Your task to perform on an android device: turn on translation in the chrome app Image 0: 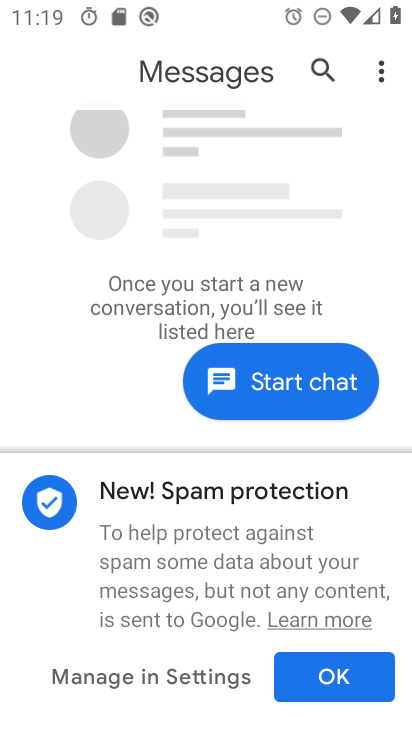
Step 0: press home button
Your task to perform on an android device: turn on translation in the chrome app Image 1: 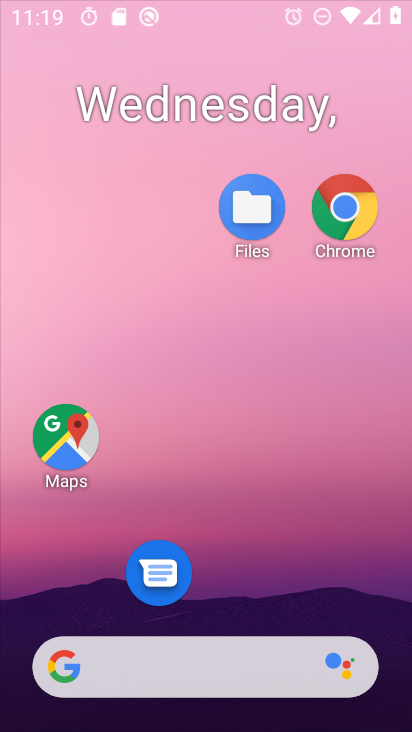
Step 1: drag from (248, 695) to (308, 90)
Your task to perform on an android device: turn on translation in the chrome app Image 2: 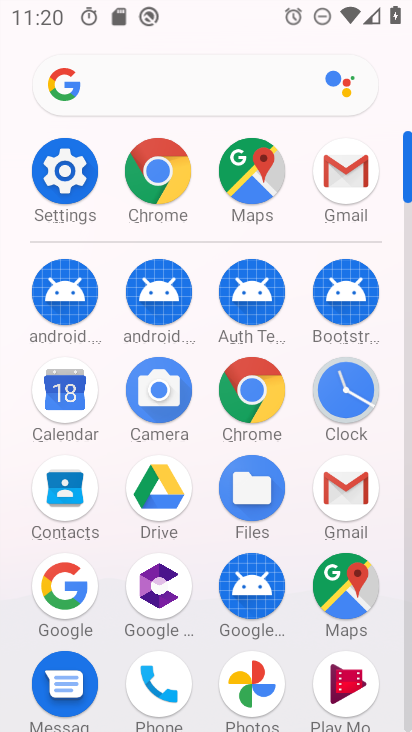
Step 2: click (253, 412)
Your task to perform on an android device: turn on translation in the chrome app Image 3: 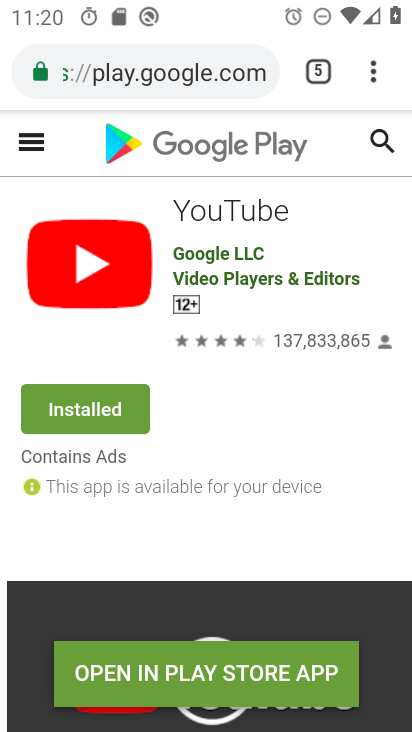
Step 3: click (381, 70)
Your task to perform on an android device: turn on translation in the chrome app Image 4: 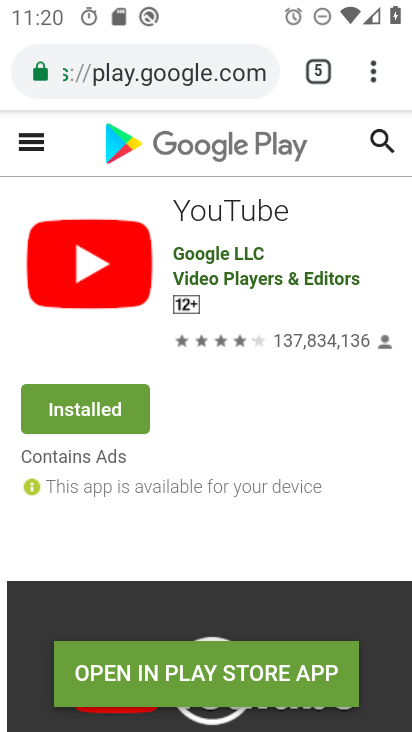
Step 4: click (381, 85)
Your task to perform on an android device: turn on translation in the chrome app Image 5: 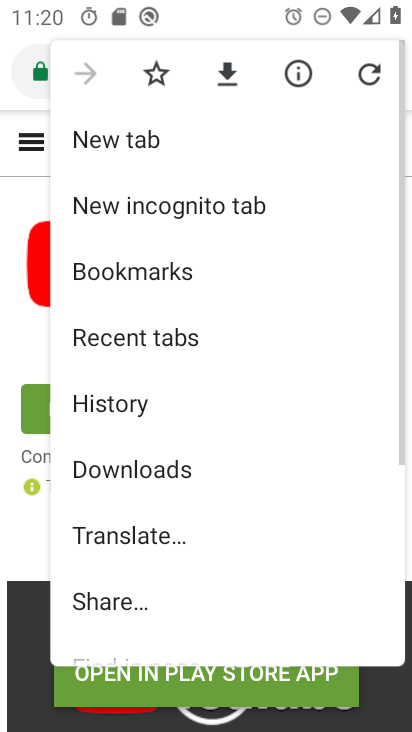
Step 5: drag from (206, 556) to (227, 284)
Your task to perform on an android device: turn on translation in the chrome app Image 6: 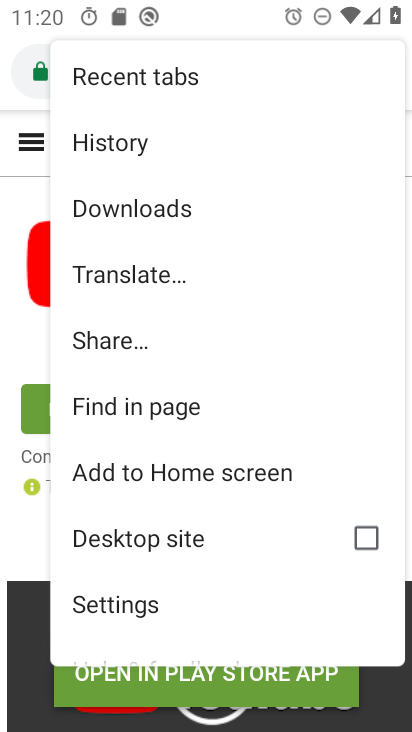
Step 6: click (171, 276)
Your task to perform on an android device: turn on translation in the chrome app Image 7: 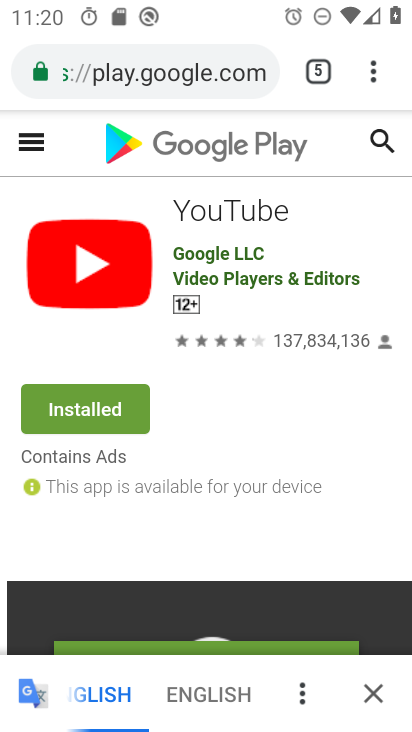
Step 7: click (299, 706)
Your task to perform on an android device: turn on translation in the chrome app Image 8: 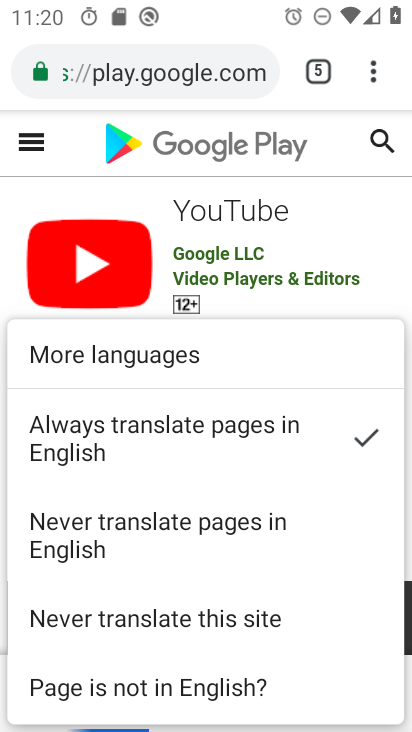
Step 8: task complete